Your task to perform on an android device: remove spam from my inbox in the gmail app Image 0: 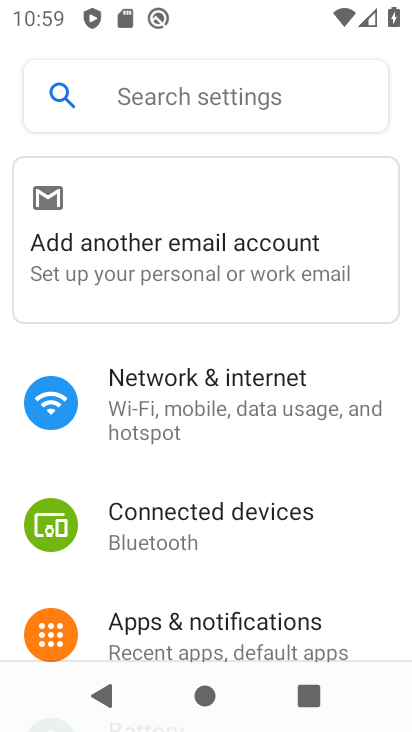
Step 0: press home button
Your task to perform on an android device: remove spam from my inbox in the gmail app Image 1: 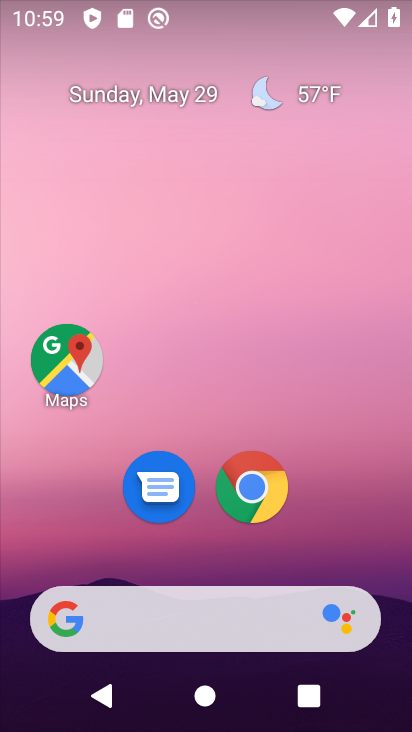
Step 1: drag from (63, 575) to (236, 96)
Your task to perform on an android device: remove spam from my inbox in the gmail app Image 2: 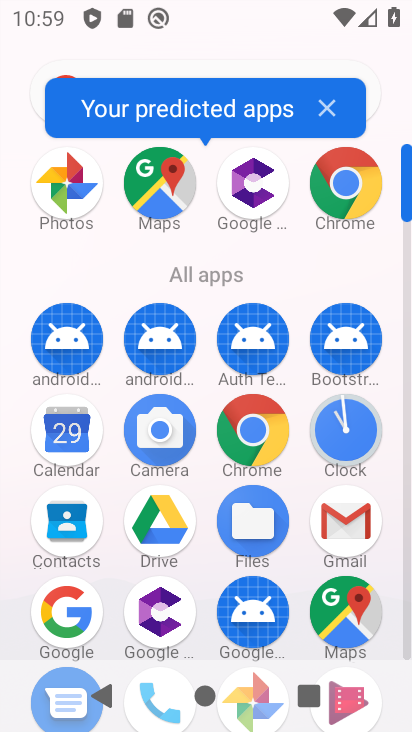
Step 2: click (326, 526)
Your task to perform on an android device: remove spam from my inbox in the gmail app Image 3: 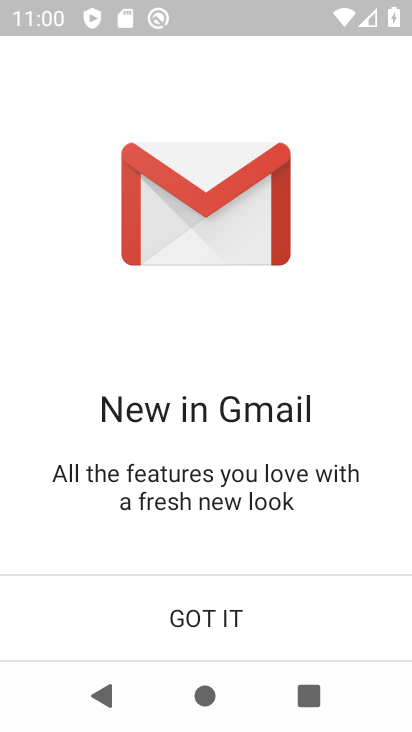
Step 3: click (195, 629)
Your task to perform on an android device: remove spam from my inbox in the gmail app Image 4: 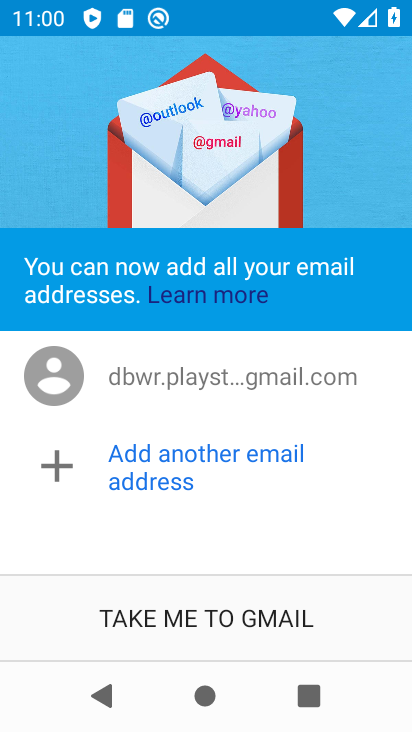
Step 4: click (229, 647)
Your task to perform on an android device: remove spam from my inbox in the gmail app Image 5: 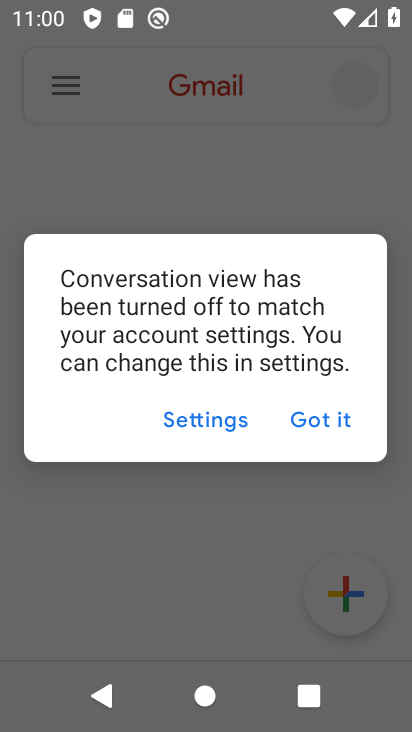
Step 5: click (333, 416)
Your task to perform on an android device: remove spam from my inbox in the gmail app Image 6: 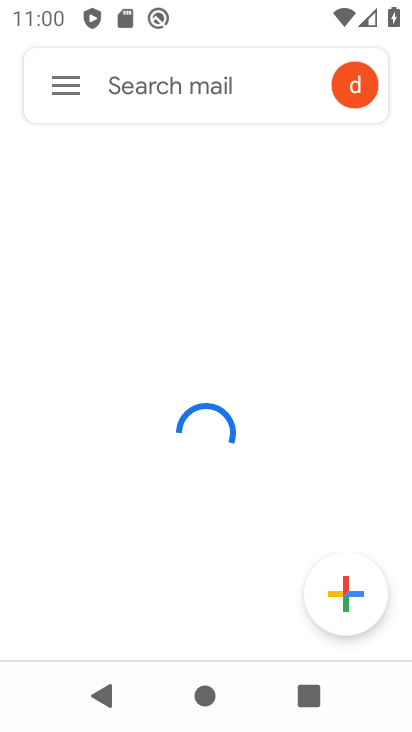
Step 6: click (31, 100)
Your task to perform on an android device: remove spam from my inbox in the gmail app Image 7: 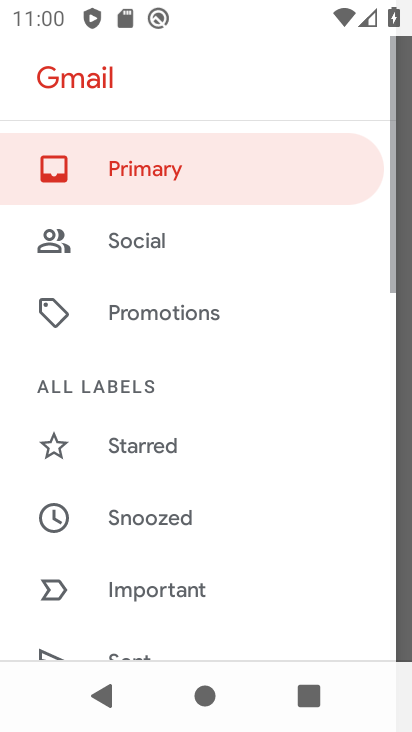
Step 7: drag from (92, 583) to (228, 172)
Your task to perform on an android device: remove spam from my inbox in the gmail app Image 8: 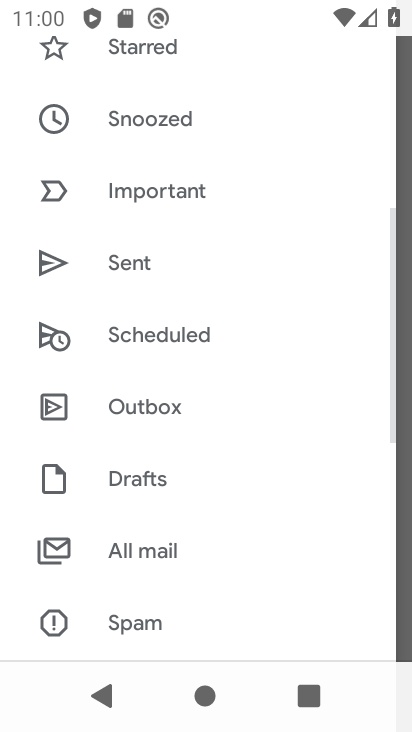
Step 8: drag from (170, 605) to (230, 339)
Your task to perform on an android device: remove spam from my inbox in the gmail app Image 9: 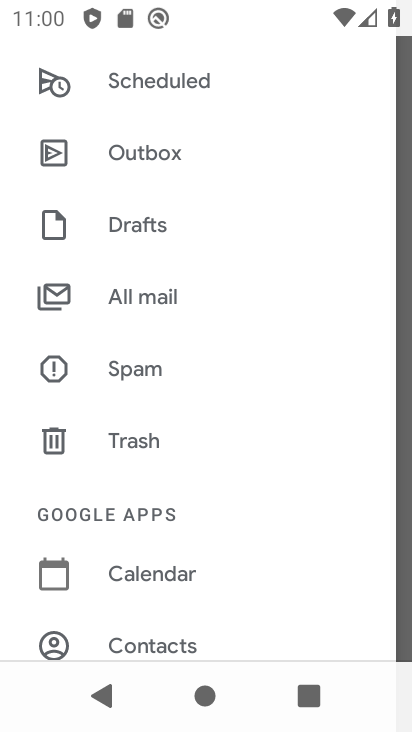
Step 9: click (199, 371)
Your task to perform on an android device: remove spam from my inbox in the gmail app Image 10: 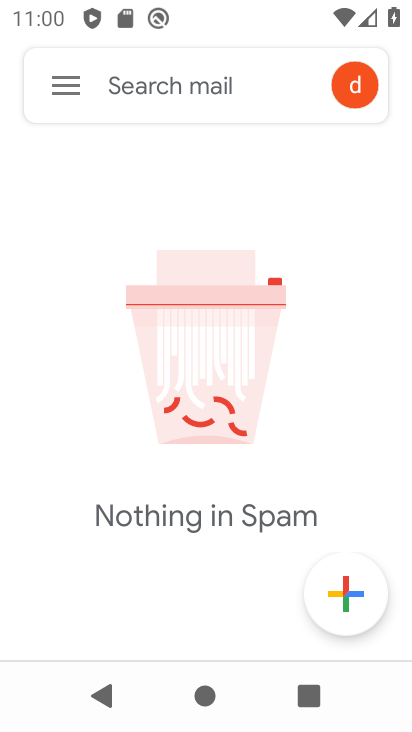
Step 10: task complete